Your task to perform on an android device: Go to settings Image 0: 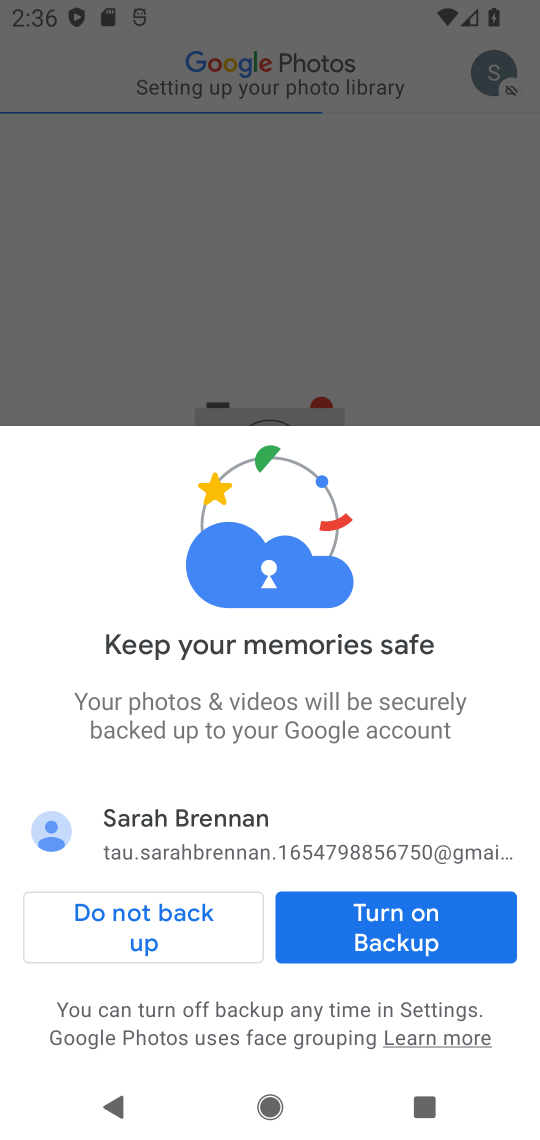
Step 0: press home button
Your task to perform on an android device: Go to settings Image 1: 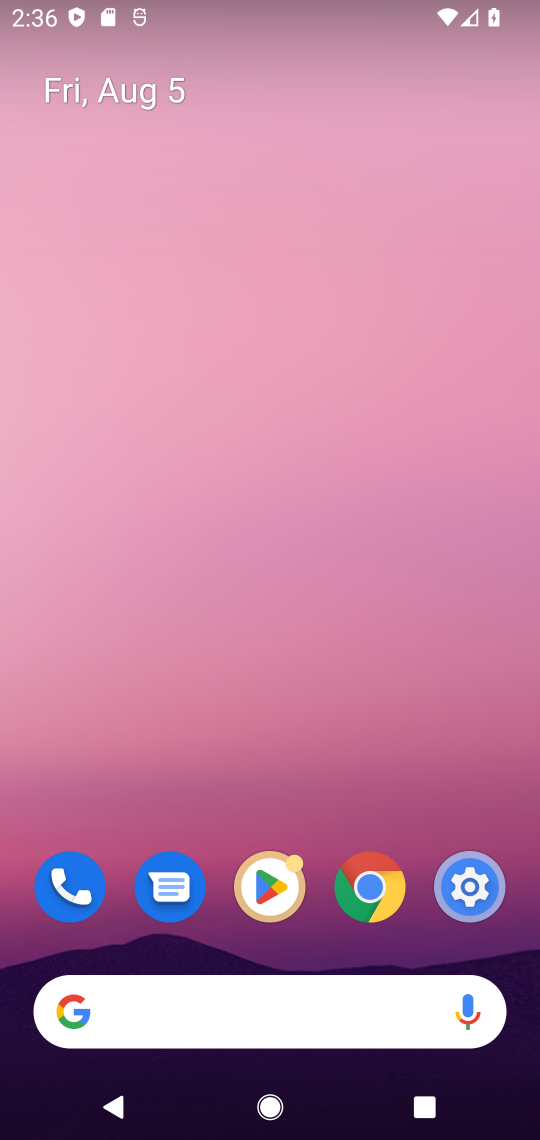
Step 1: drag from (295, 775) to (362, 66)
Your task to perform on an android device: Go to settings Image 2: 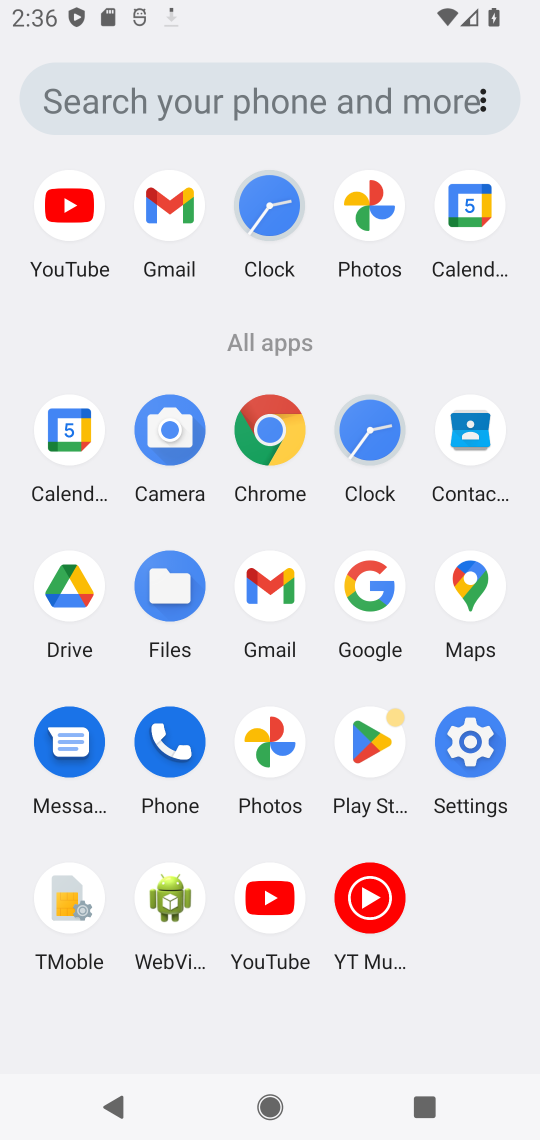
Step 2: click (455, 738)
Your task to perform on an android device: Go to settings Image 3: 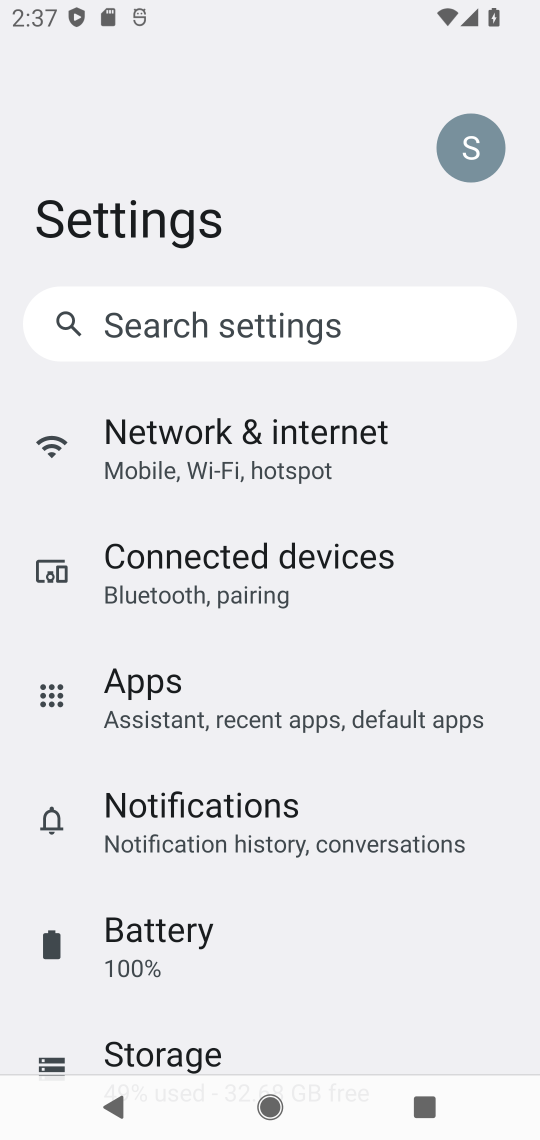
Step 3: task complete